Your task to perform on an android device: Is it going to rain this weekend? Image 0: 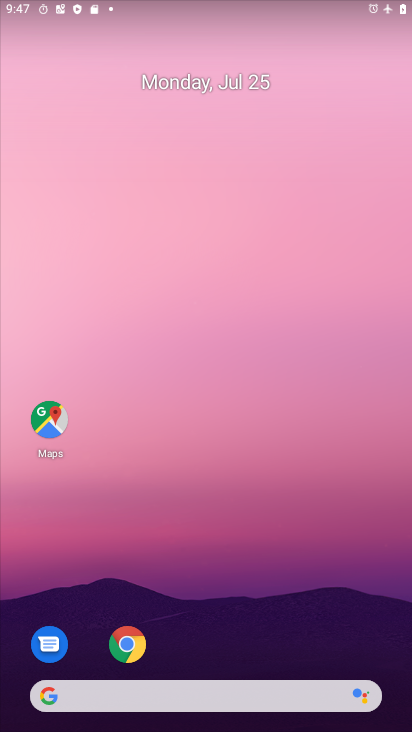
Step 0: drag from (245, 633) to (238, 81)
Your task to perform on an android device: Is it going to rain this weekend? Image 1: 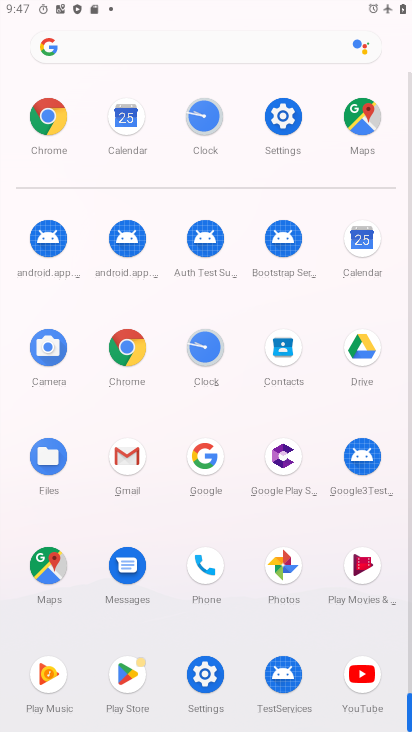
Step 1: click (137, 350)
Your task to perform on an android device: Is it going to rain this weekend? Image 2: 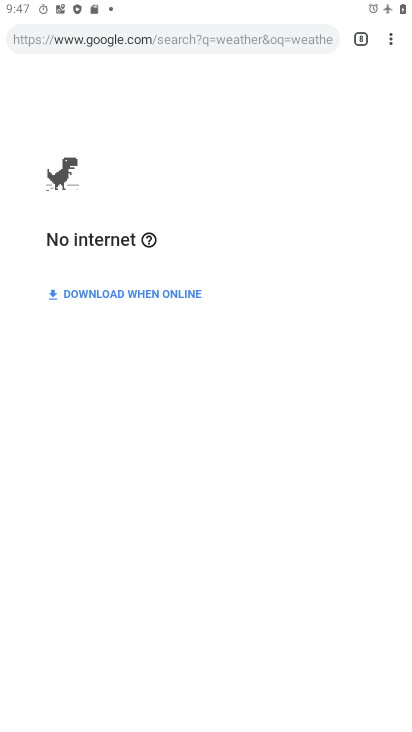
Step 2: click (359, 43)
Your task to perform on an android device: Is it going to rain this weekend? Image 3: 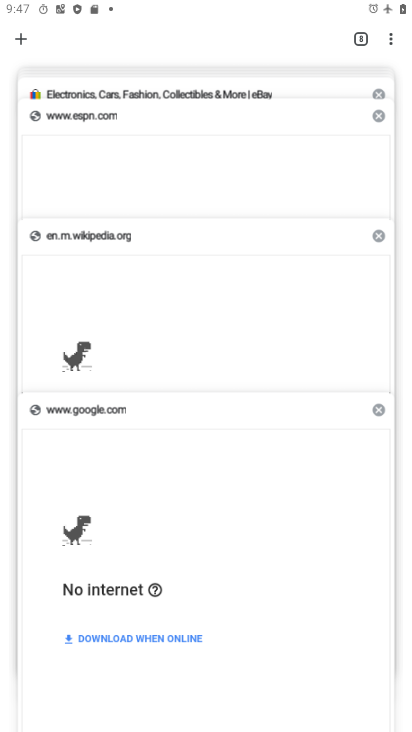
Step 3: click (29, 39)
Your task to perform on an android device: Is it going to rain this weekend? Image 4: 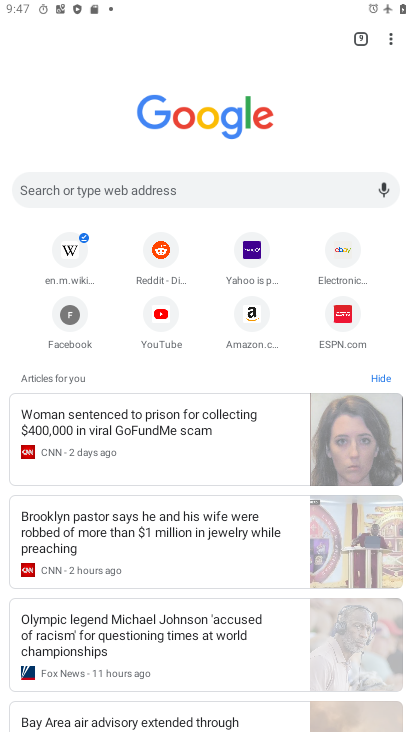
Step 4: drag from (240, 51) to (220, 564)
Your task to perform on an android device: Is it going to rain this weekend? Image 5: 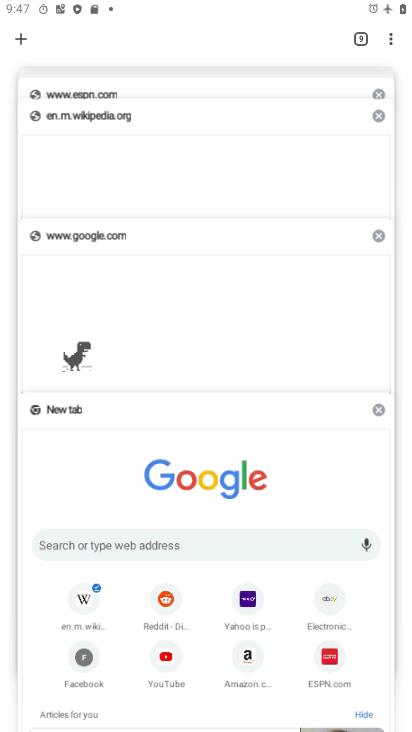
Step 5: drag from (225, 1) to (249, 556)
Your task to perform on an android device: Is it going to rain this weekend? Image 6: 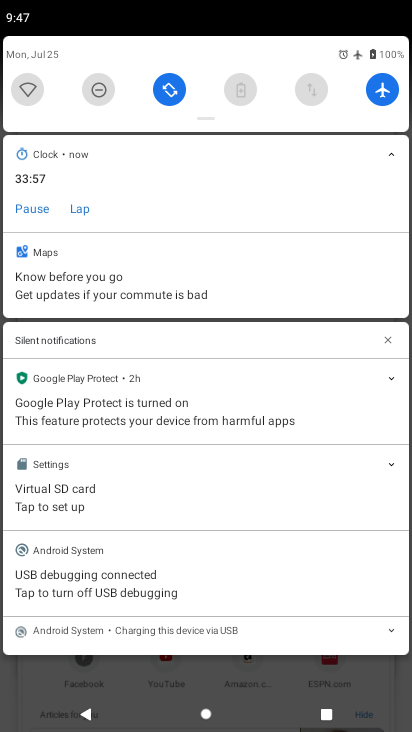
Step 6: click (388, 88)
Your task to perform on an android device: Is it going to rain this weekend? Image 7: 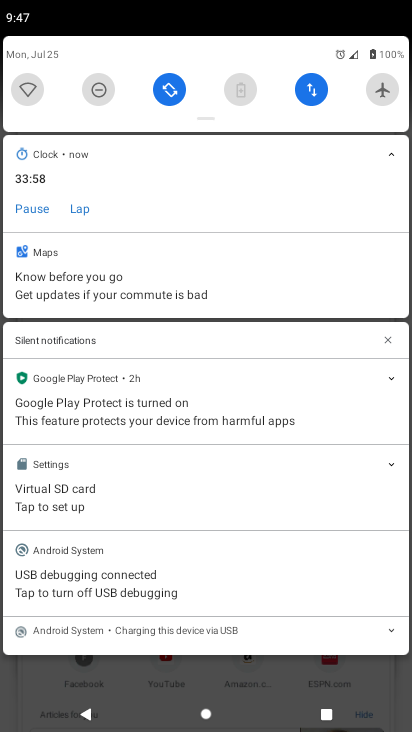
Step 7: click (91, 717)
Your task to perform on an android device: Is it going to rain this weekend? Image 8: 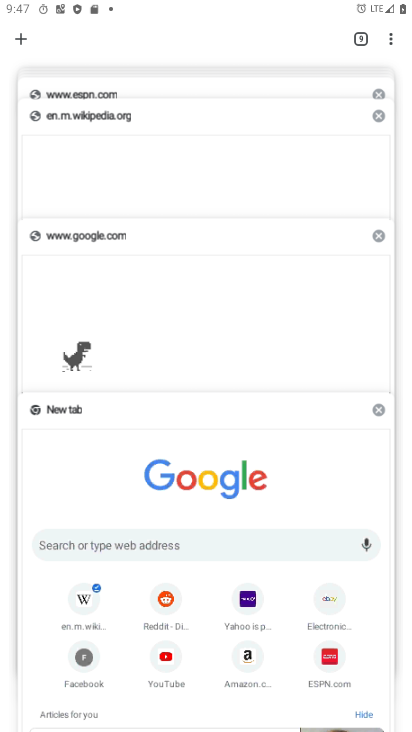
Step 8: click (131, 478)
Your task to perform on an android device: Is it going to rain this weekend? Image 9: 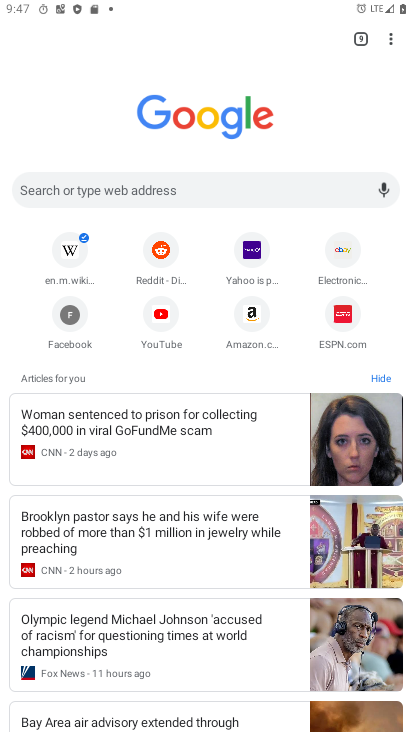
Step 9: click (165, 188)
Your task to perform on an android device: Is it going to rain this weekend? Image 10: 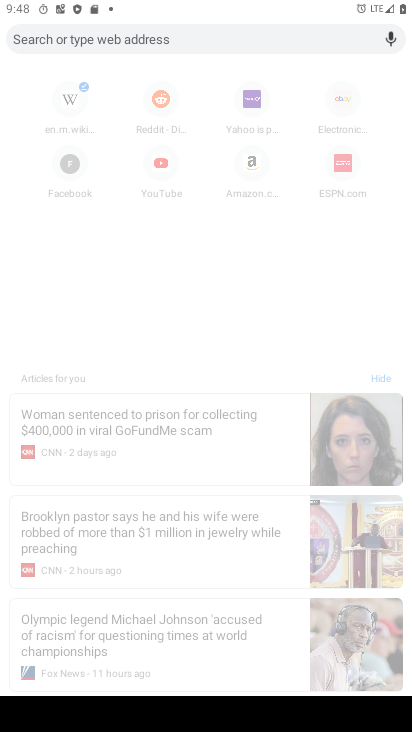
Step 10: type "Is it going to rain this weekend?"
Your task to perform on an android device: Is it going to rain this weekend? Image 11: 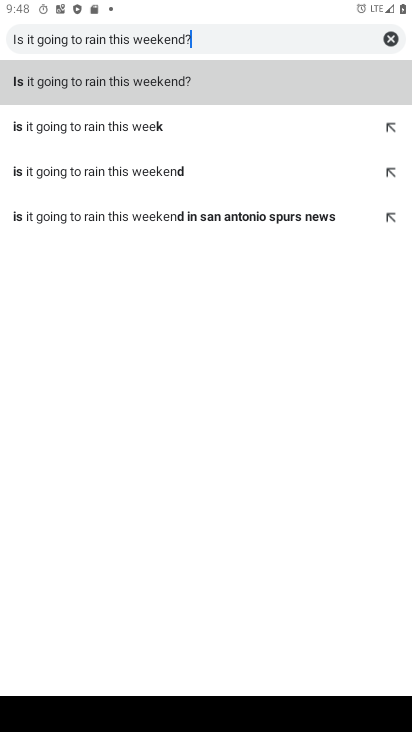
Step 11: type ""
Your task to perform on an android device: Is it going to rain this weekend? Image 12: 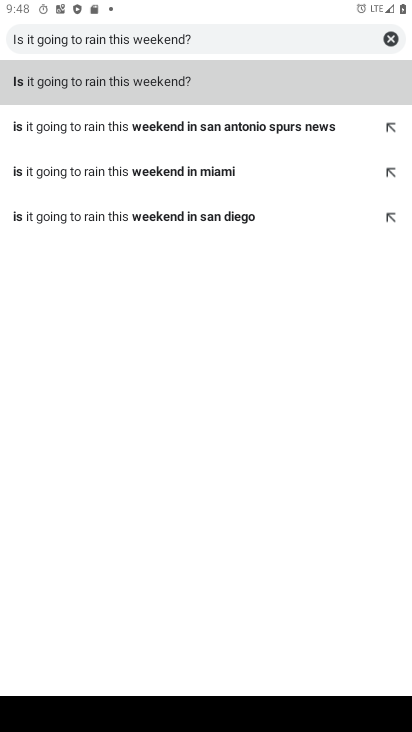
Step 12: click (139, 85)
Your task to perform on an android device: Is it going to rain this weekend? Image 13: 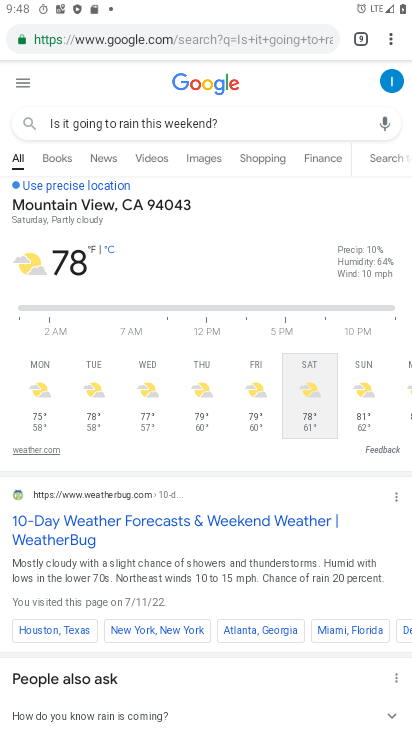
Step 13: task complete